Your task to perform on an android device: open a bookmark in the chrome app Image 0: 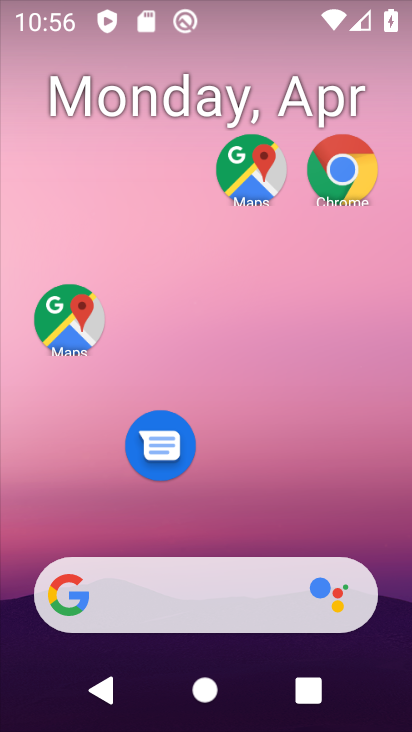
Step 0: click (326, 170)
Your task to perform on an android device: open a bookmark in the chrome app Image 1: 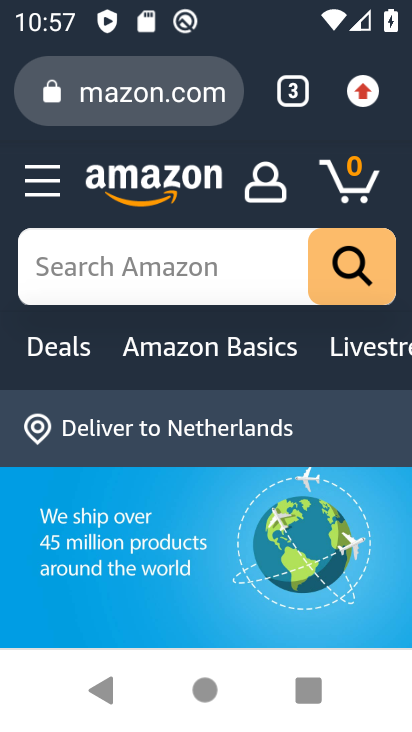
Step 1: click (303, 99)
Your task to perform on an android device: open a bookmark in the chrome app Image 2: 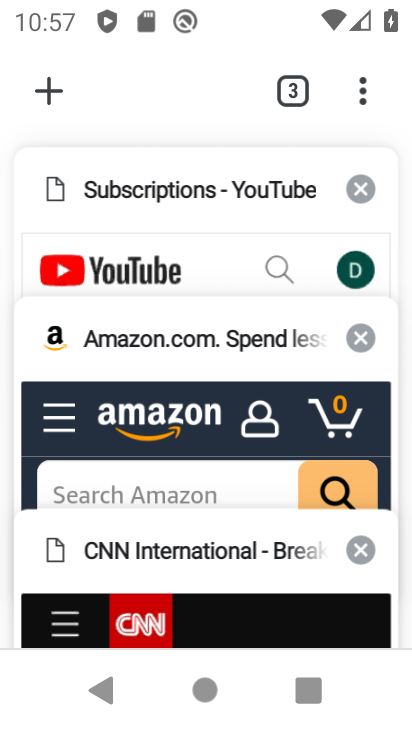
Step 2: click (46, 77)
Your task to perform on an android device: open a bookmark in the chrome app Image 3: 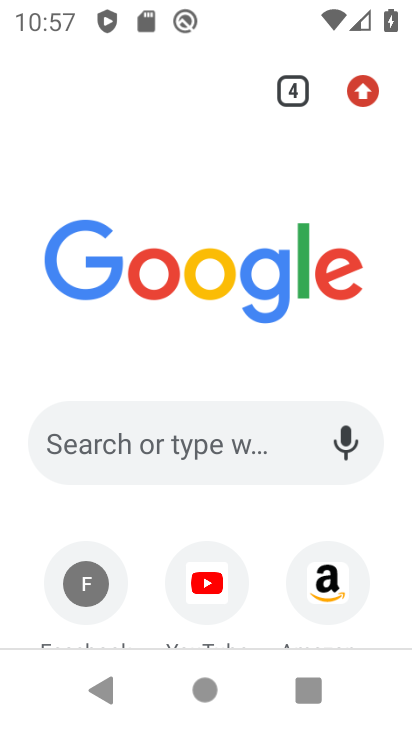
Step 3: click (110, 596)
Your task to perform on an android device: open a bookmark in the chrome app Image 4: 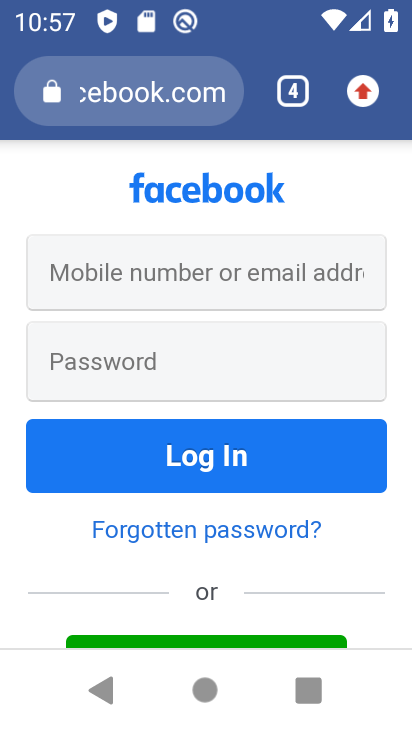
Step 4: type ""
Your task to perform on an android device: open a bookmark in the chrome app Image 5: 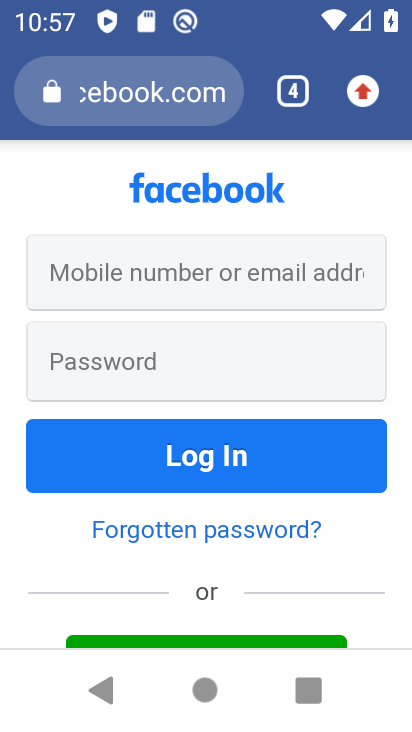
Step 5: task complete